Your task to perform on an android device: Search for sushi restaurants on Maps Image 0: 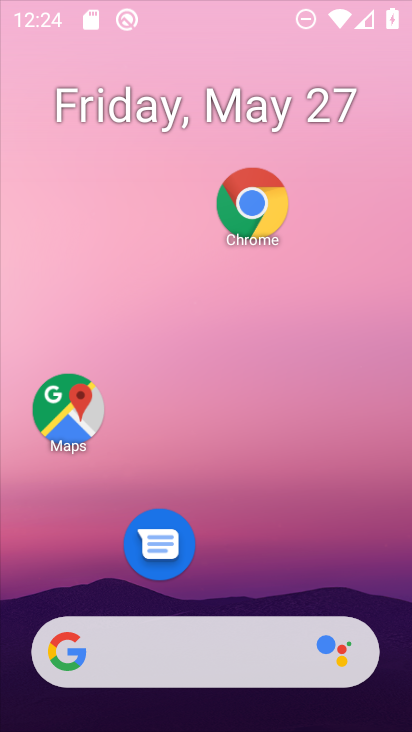
Step 0: click (283, 51)
Your task to perform on an android device: Search for sushi restaurants on Maps Image 1: 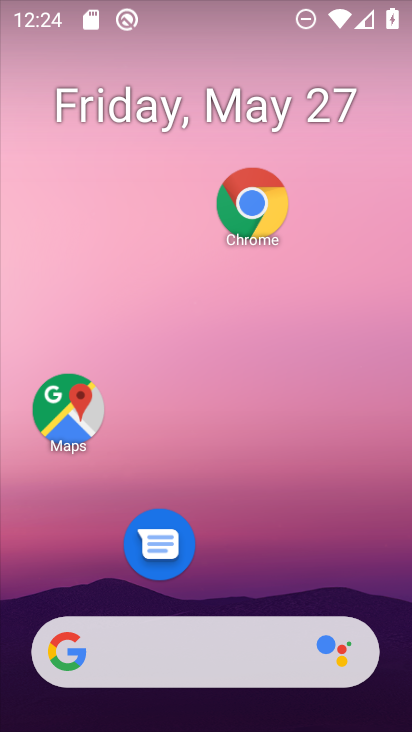
Step 1: drag from (239, 489) to (196, 33)
Your task to perform on an android device: Search for sushi restaurants on Maps Image 2: 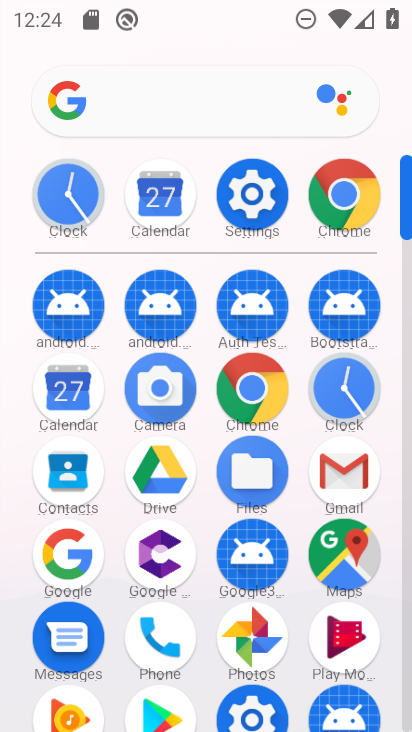
Step 2: click (349, 553)
Your task to perform on an android device: Search for sushi restaurants on Maps Image 3: 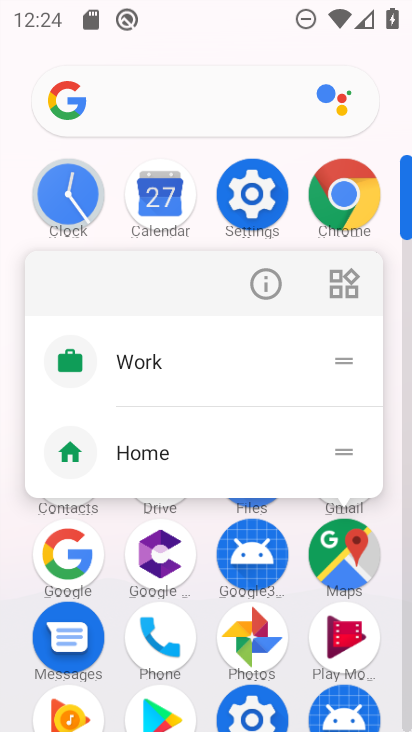
Step 3: click (278, 285)
Your task to perform on an android device: Search for sushi restaurants on Maps Image 4: 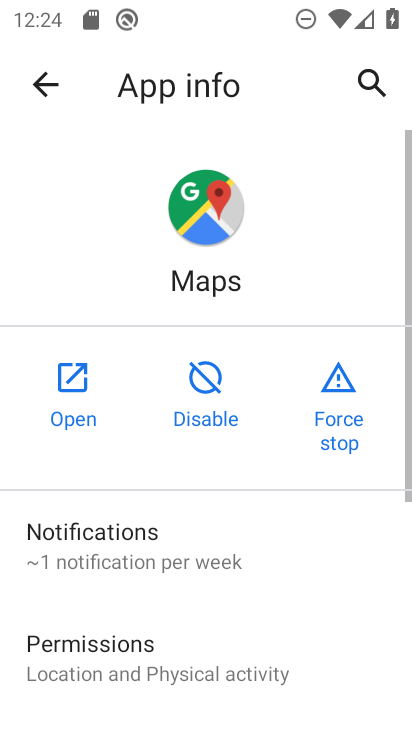
Step 4: click (50, 417)
Your task to perform on an android device: Search for sushi restaurants on Maps Image 5: 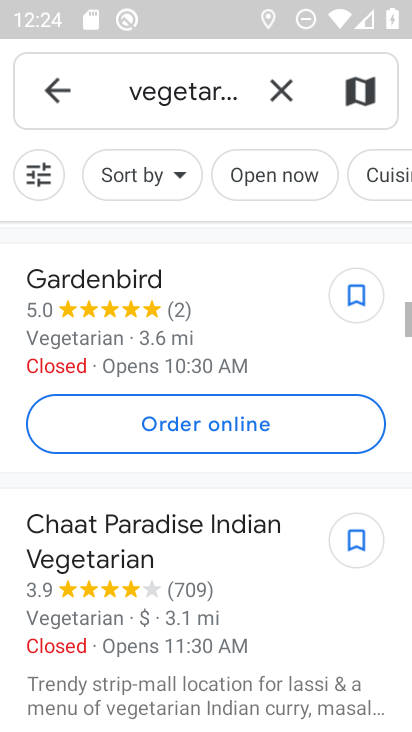
Step 5: click (285, 95)
Your task to perform on an android device: Search for sushi restaurants on Maps Image 6: 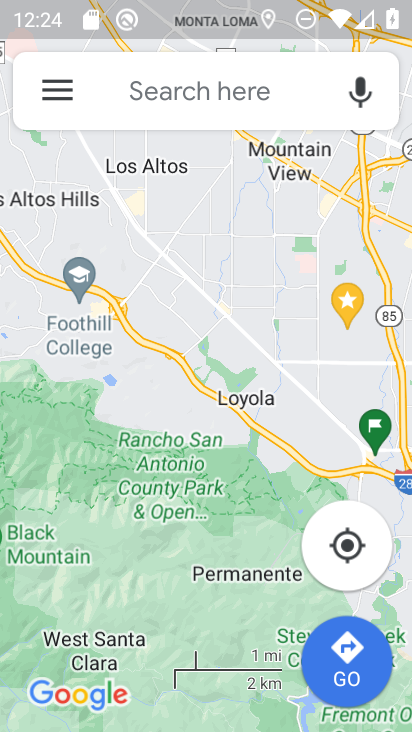
Step 6: click (150, 89)
Your task to perform on an android device: Search for sushi restaurants on Maps Image 7: 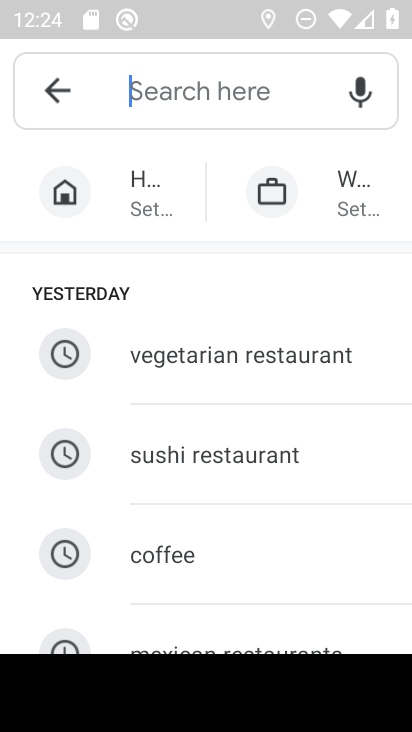
Step 7: click (182, 483)
Your task to perform on an android device: Search for sushi restaurants on Maps Image 8: 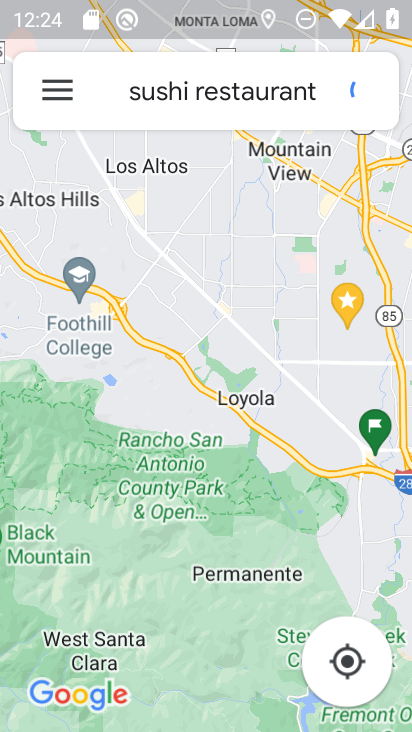
Step 8: task complete